Your task to perform on an android device: Open ESPN.com Image 0: 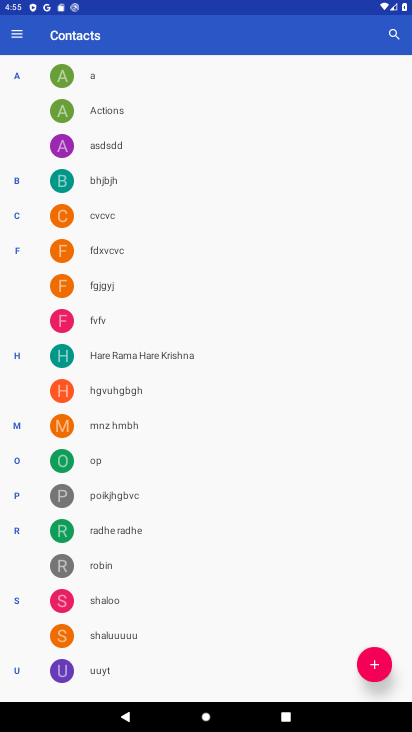
Step 0: press home button
Your task to perform on an android device: Open ESPN.com Image 1: 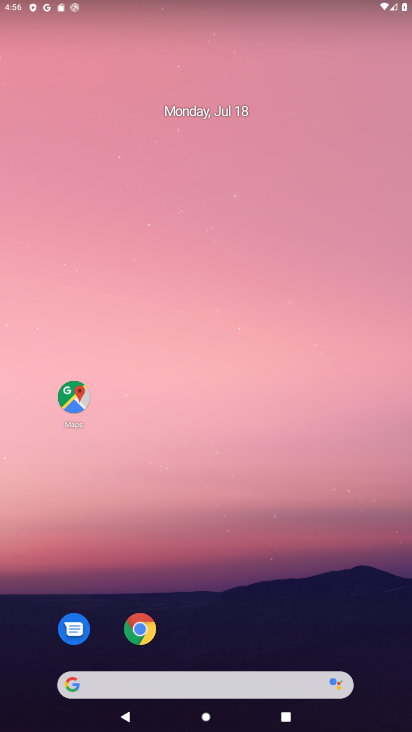
Step 1: drag from (253, 579) to (258, 137)
Your task to perform on an android device: Open ESPN.com Image 2: 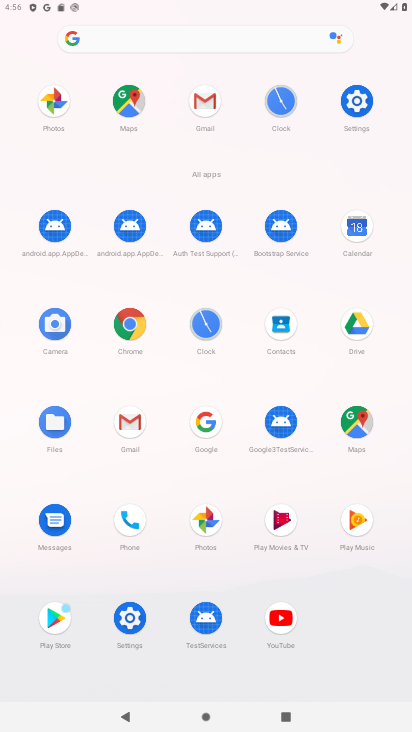
Step 2: click (131, 325)
Your task to perform on an android device: Open ESPN.com Image 3: 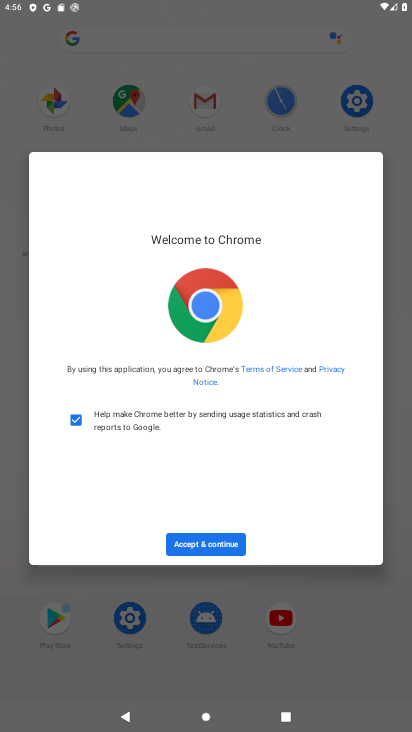
Step 3: click (211, 546)
Your task to perform on an android device: Open ESPN.com Image 4: 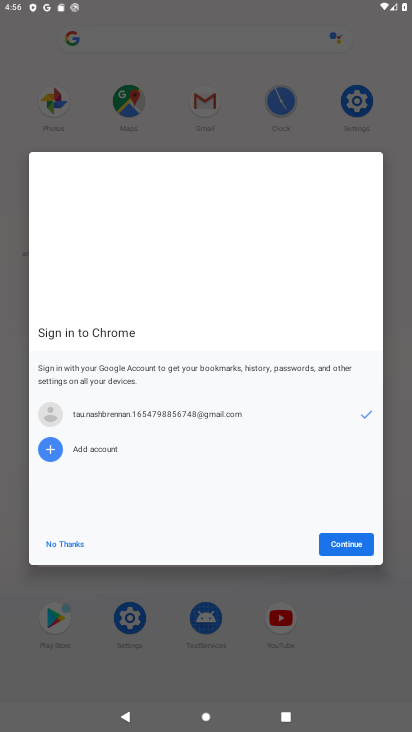
Step 4: click (351, 551)
Your task to perform on an android device: Open ESPN.com Image 5: 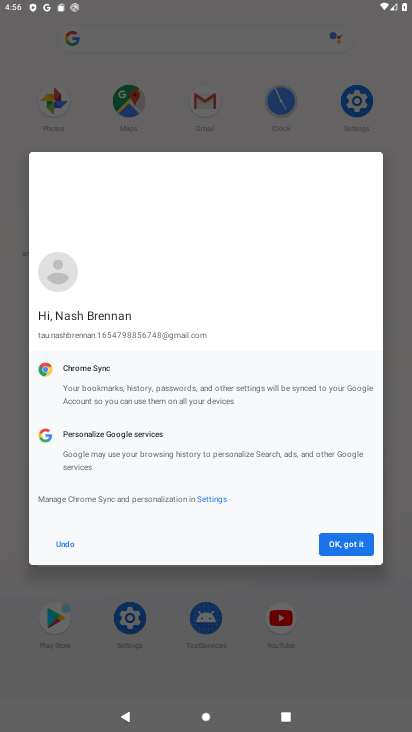
Step 5: click (342, 545)
Your task to perform on an android device: Open ESPN.com Image 6: 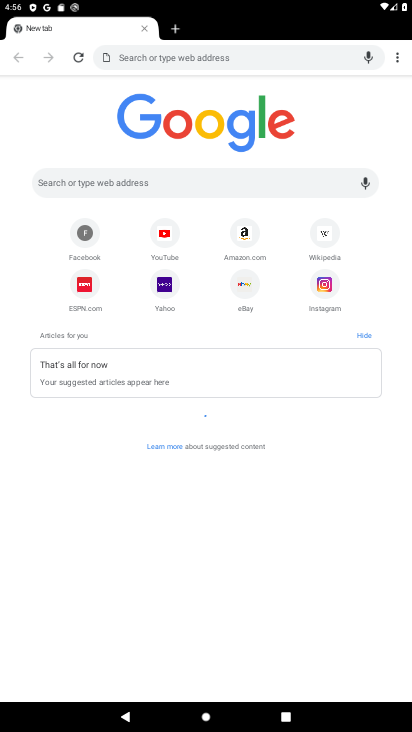
Step 6: click (91, 295)
Your task to perform on an android device: Open ESPN.com Image 7: 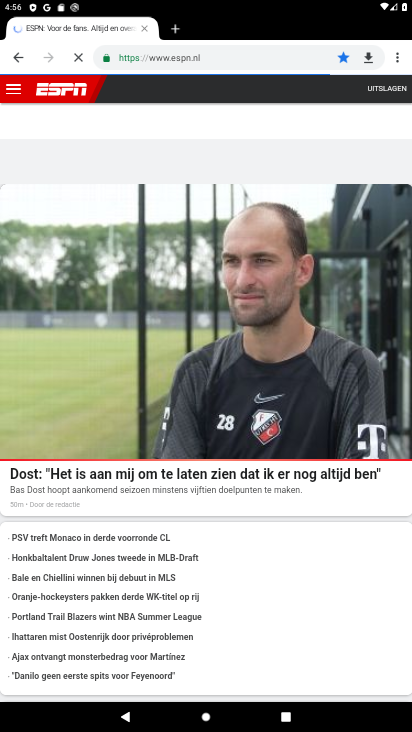
Step 7: task complete